Your task to perform on an android device: Open battery settings Image 0: 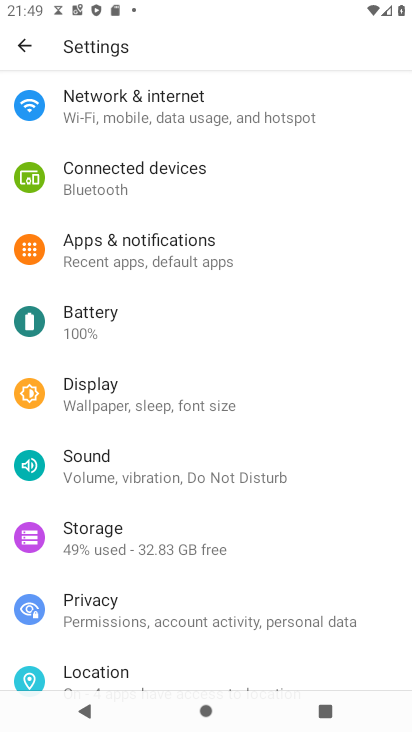
Step 0: click (110, 321)
Your task to perform on an android device: Open battery settings Image 1: 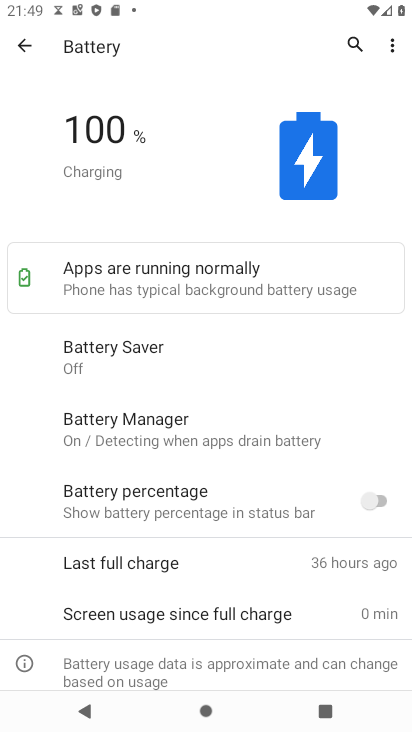
Step 1: task complete